Your task to perform on an android device: Open calendar and show me the second week of next month Image 0: 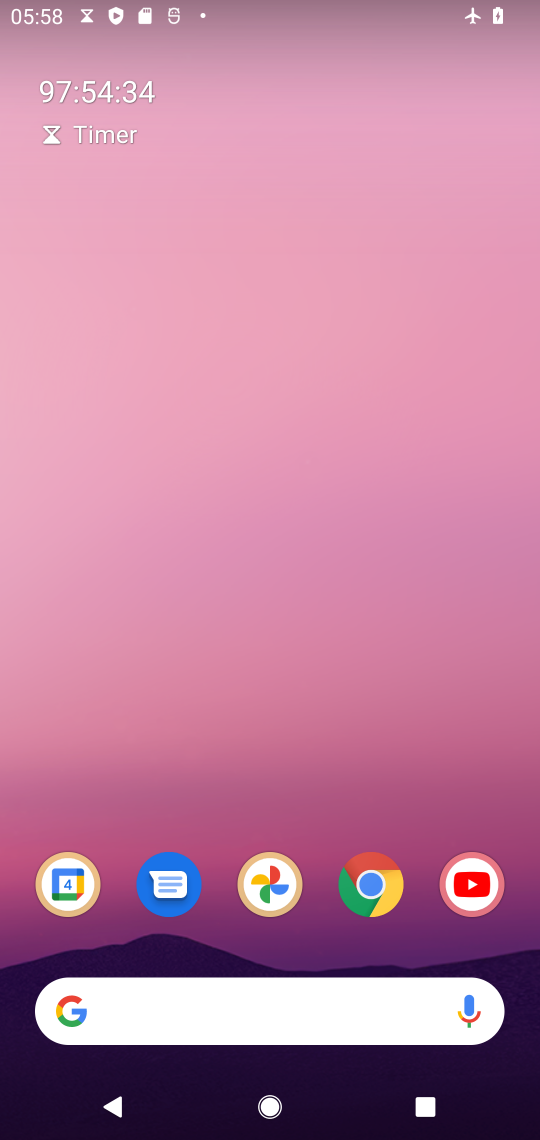
Step 0: drag from (215, 1014) to (236, 187)
Your task to perform on an android device: Open calendar and show me the second week of next month Image 1: 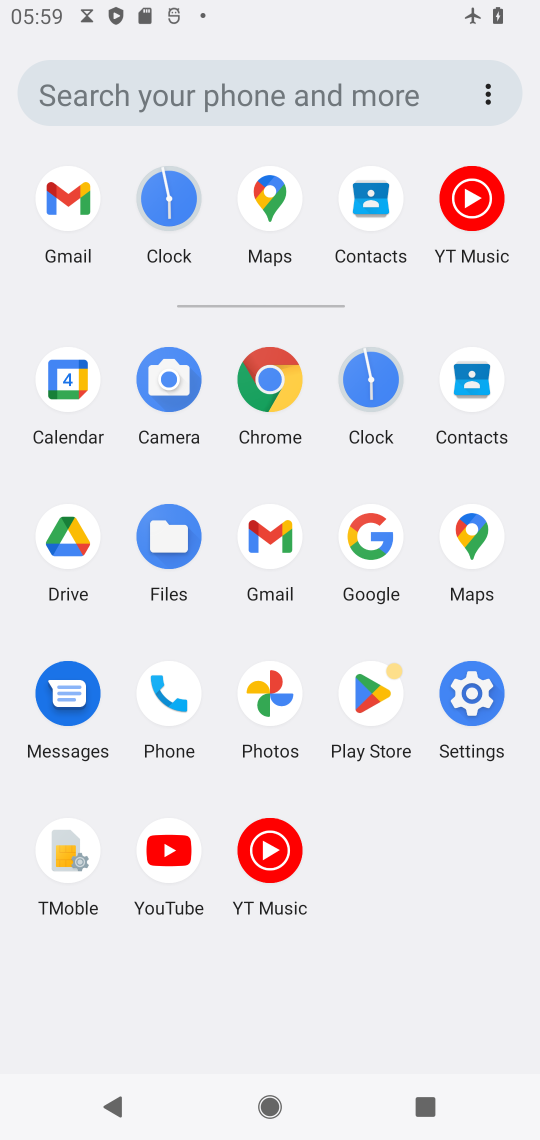
Step 1: click (73, 376)
Your task to perform on an android device: Open calendar and show me the second week of next month Image 2: 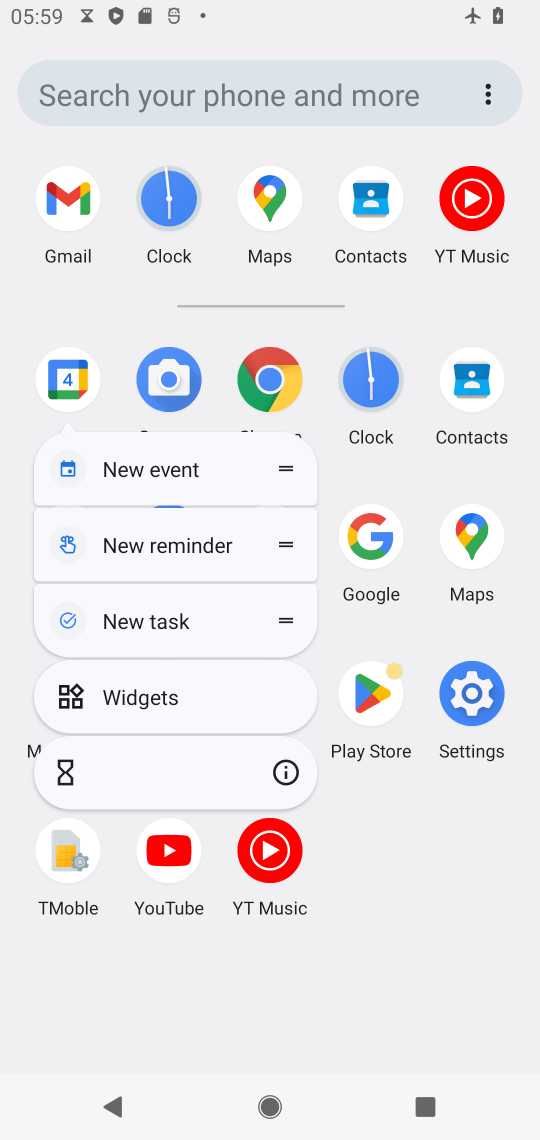
Step 2: click (57, 394)
Your task to perform on an android device: Open calendar and show me the second week of next month Image 3: 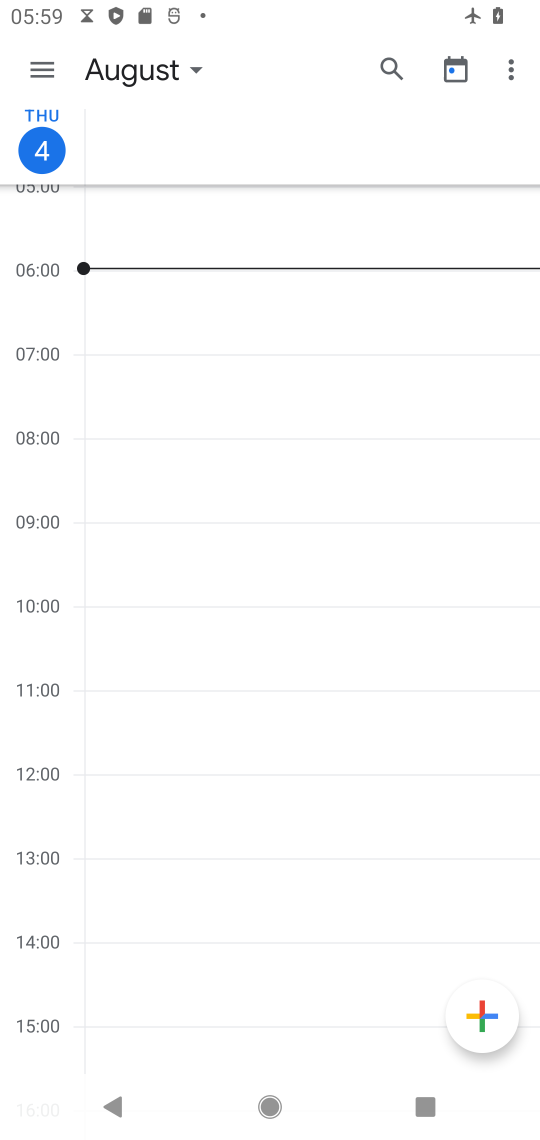
Step 3: click (41, 70)
Your task to perform on an android device: Open calendar and show me the second week of next month Image 4: 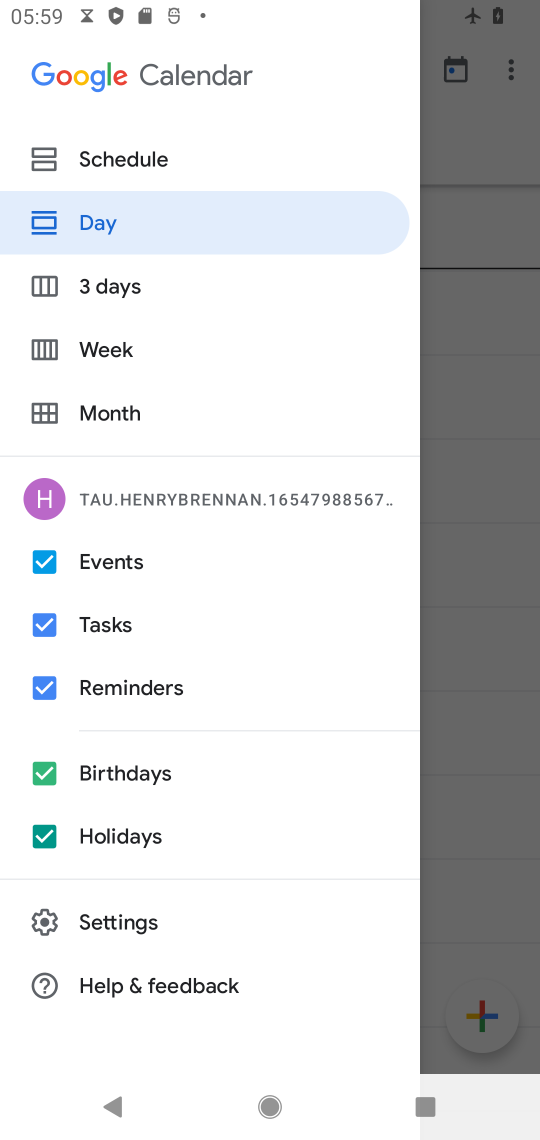
Step 4: click (125, 347)
Your task to perform on an android device: Open calendar and show me the second week of next month Image 5: 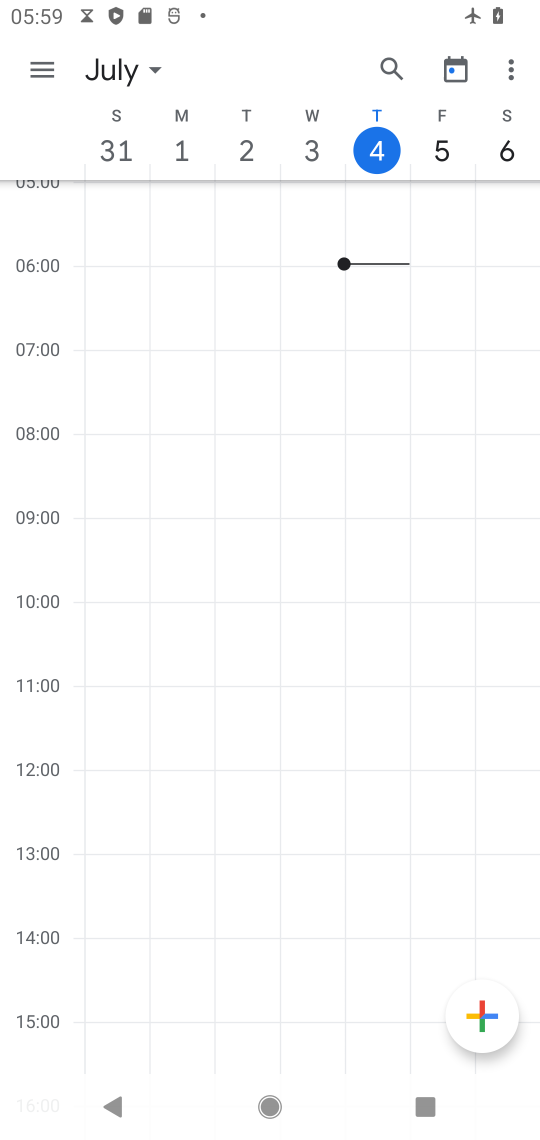
Step 5: task complete